Your task to perform on an android device: Open Google Chrome and click the shortcut for Amazon.com Image 0: 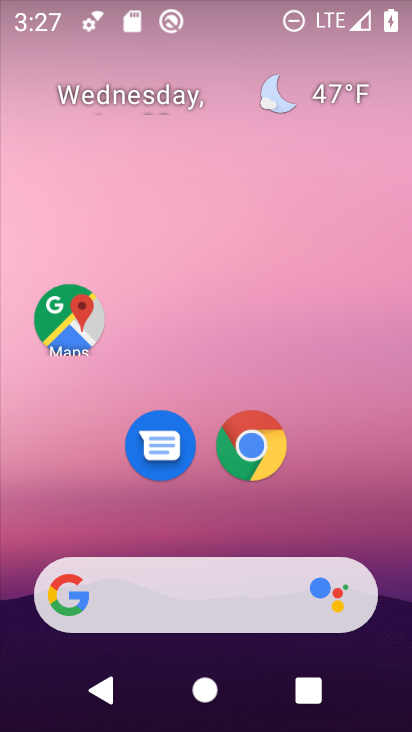
Step 0: click (255, 444)
Your task to perform on an android device: Open Google Chrome and click the shortcut for Amazon.com Image 1: 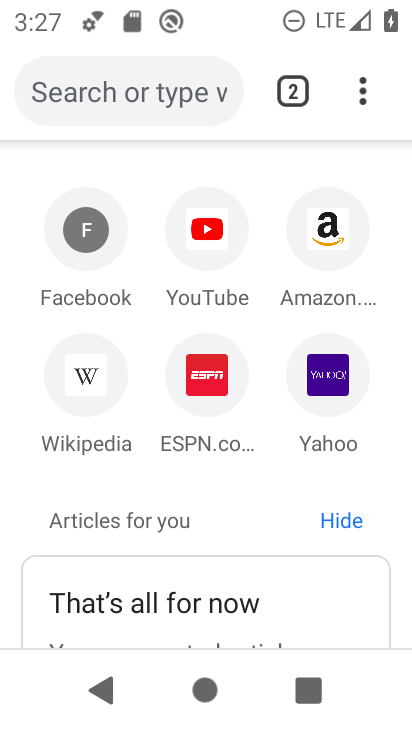
Step 1: click (320, 228)
Your task to perform on an android device: Open Google Chrome and click the shortcut for Amazon.com Image 2: 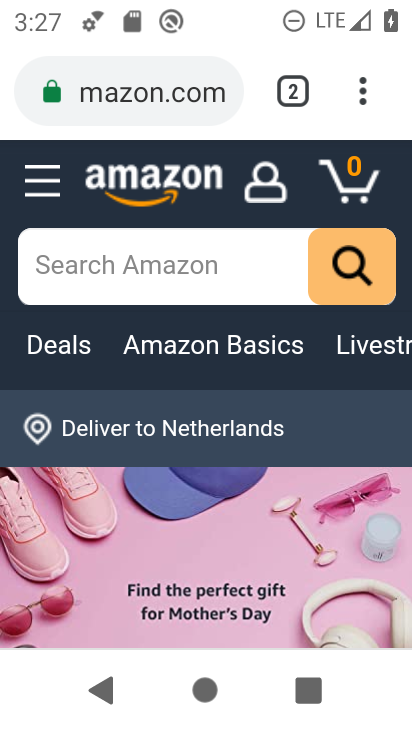
Step 2: click (363, 95)
Your task to perform on an android device: Open Google Chrome and click the shortcut for Amazon.com Image 3: 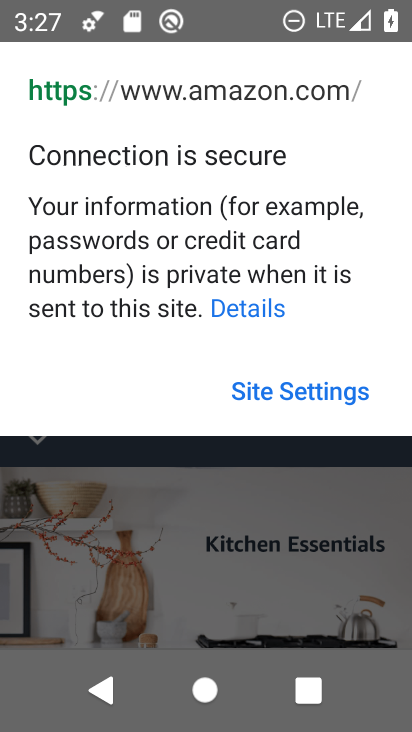
Step 3: click (301, 444)
Your task to perform on an android device: Open Google Chrome and click the shortcut for Amazon.com Image 4: 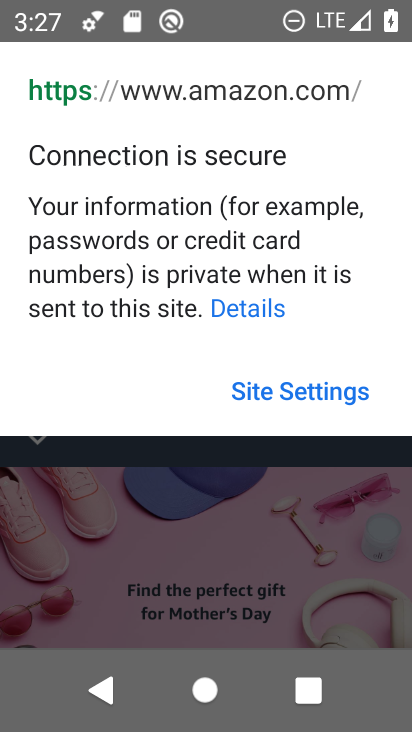
Step 4: press back button
Your task to perform on an android device: Open Google Chrome and click the shortcut for Amazon.com Image 5: 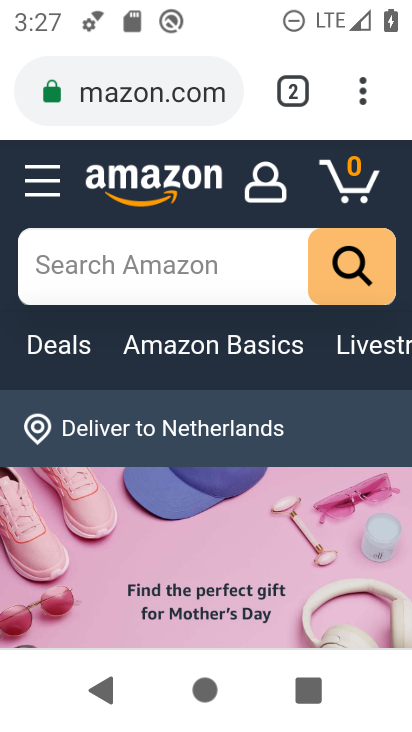
Step 5: click (367, 91)
Your task to perform on an android device: Open Google Chrome and click the shortcut for Amazon.com Image 6: 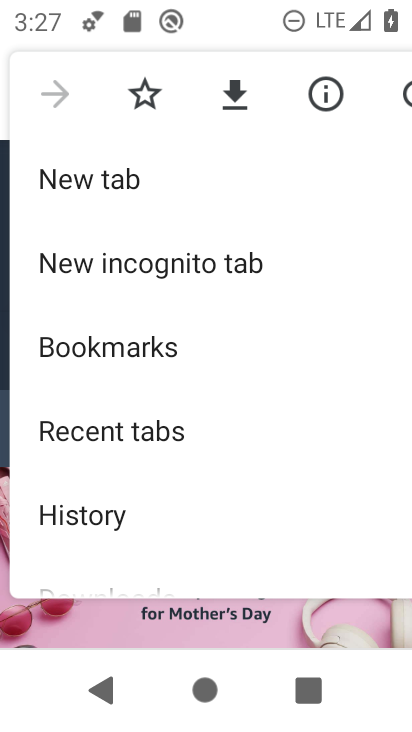
Step 6: drag from (217, 465) to (272, 312)
Your task to perform on an android device: Open Google Chrome and click the shortcut for Amazon.com Image 7: 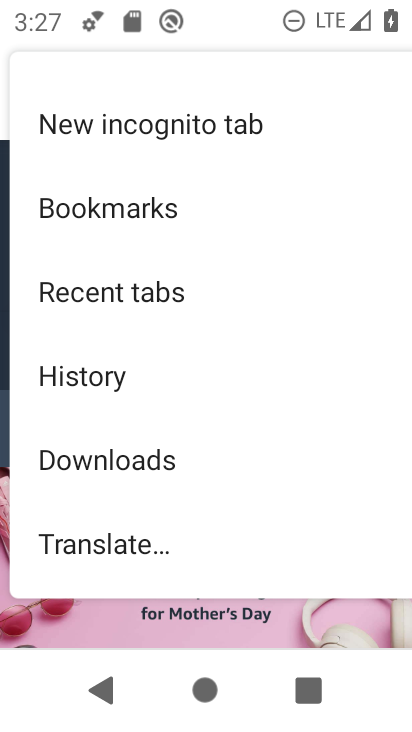
Step 7: drag from (213, 489) to (240, 377)
Your task to perform on an android device: Open Google Chrome and click the shortcut for Amazon.com Image 8: 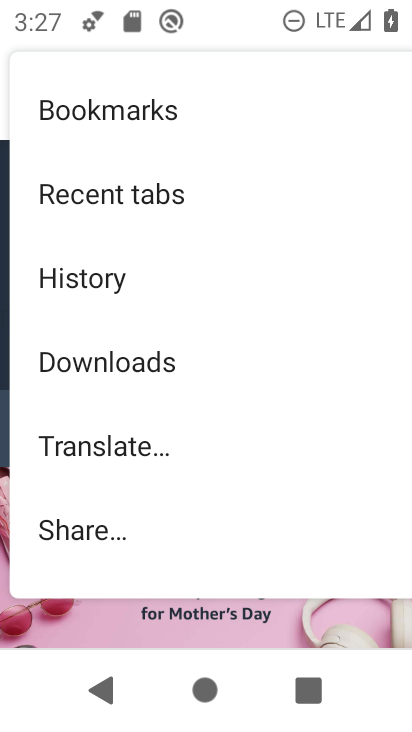
Step 8: drag from (184, 485) to (235, 318)
Your task to perform on an android device: Open Google Chrome and click the shortcut for Amazon.com Image 9: 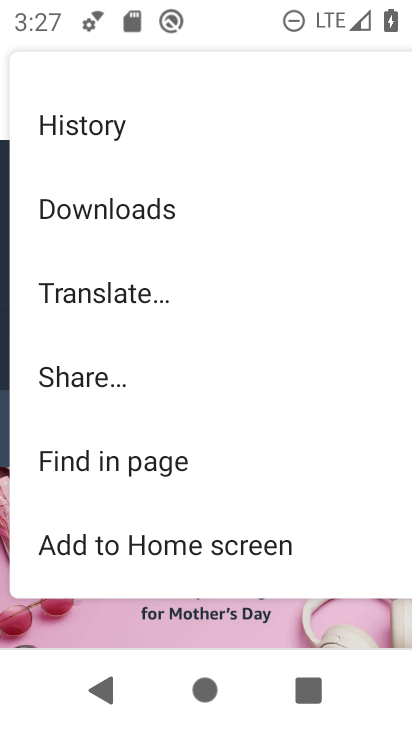
Step 9: drag from (219, 480) to (255, 349)
Your task to perform on an android device: Open Google Chrome and click the shortcut for Amazon.com Image 10: 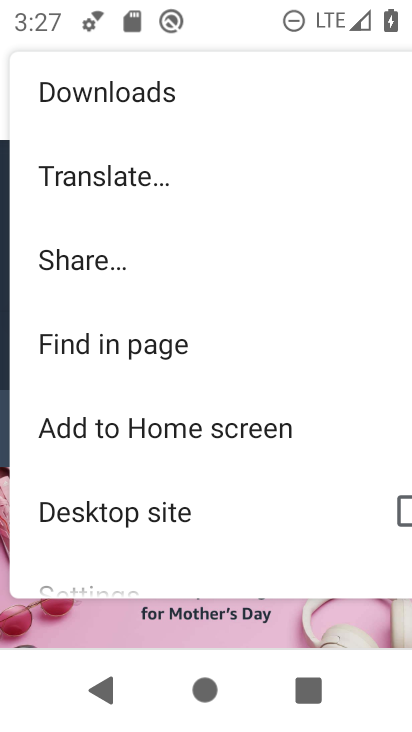
Step 10: click (247, 426)
Your task to perform on an android device: Open Google Chrome and click the shortcut for Amazon.com Image 11: 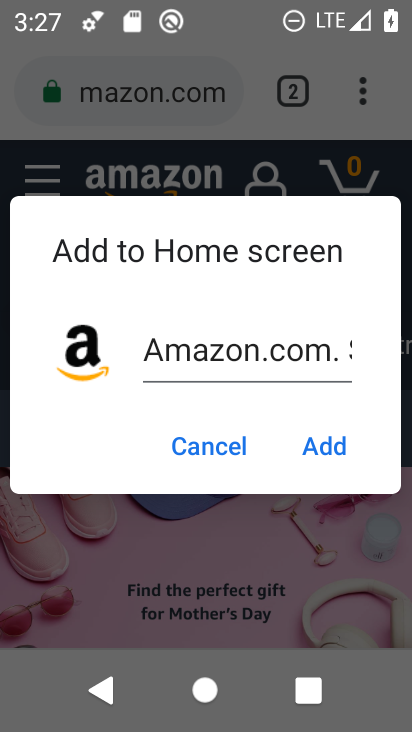
Step 11: click (310, 443)
Your task to perform on an android device: Open Google Chrome and click the shortcut for Amazon.com Image 12: 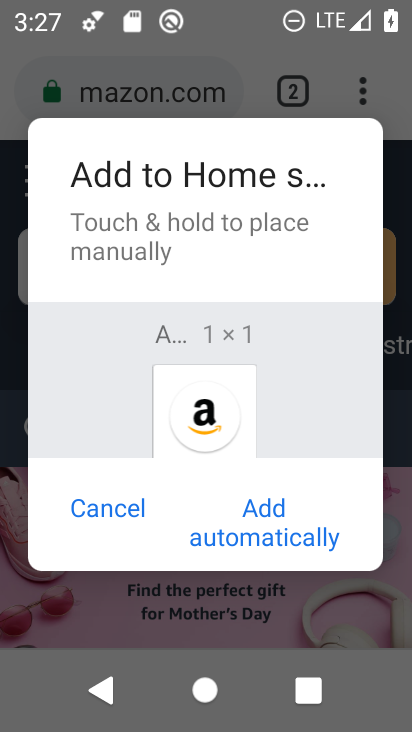
Step 12: click (116, 517)
Your task to perform on an android device: Open Google Chrome and click the shortcut for Amazon.com Image 13: 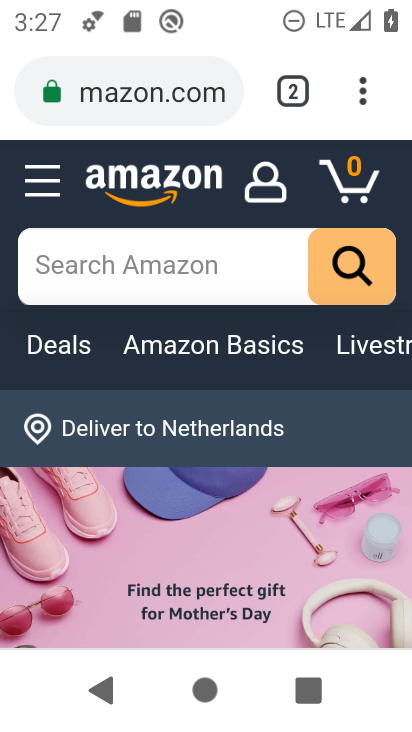
Step 13: task complete